Your task to perform on an android device: turn off picture-in-picture Image 0: 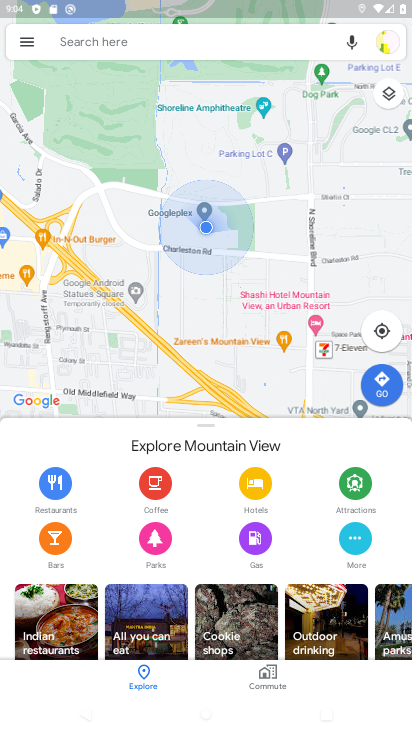
Step 0: press home button
Your task to perform on an android device: turn off picture-in-picture Image 1: 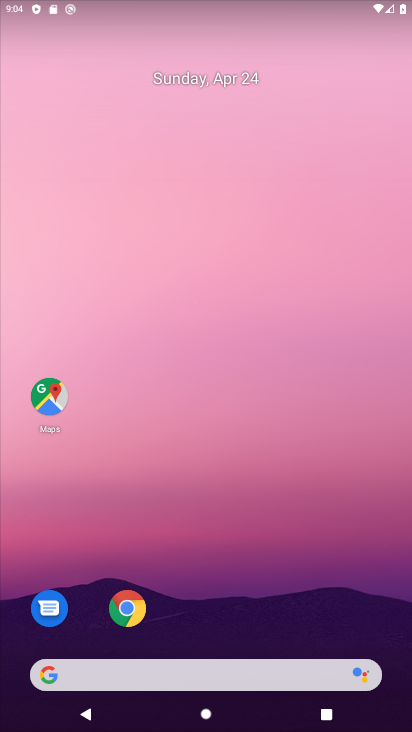
Step 1: drag from (301, 692) to (274, 211)
Your task to perform on an android device: turn off picture-in-picture Image 2: 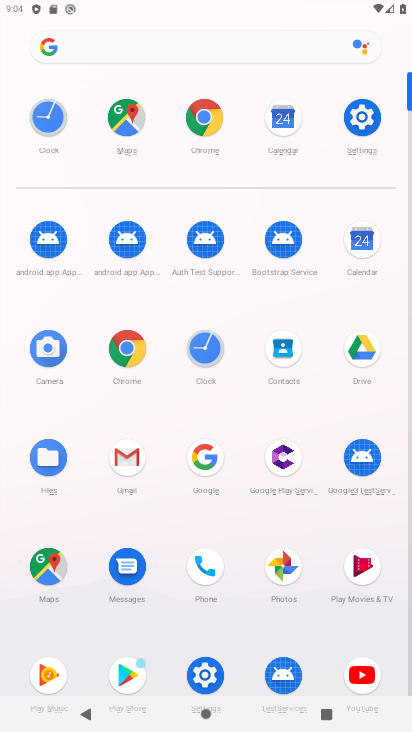
Step 2: click (354, 132)
Your task to perform on an android device: turn off picture-in-picture Image 3: 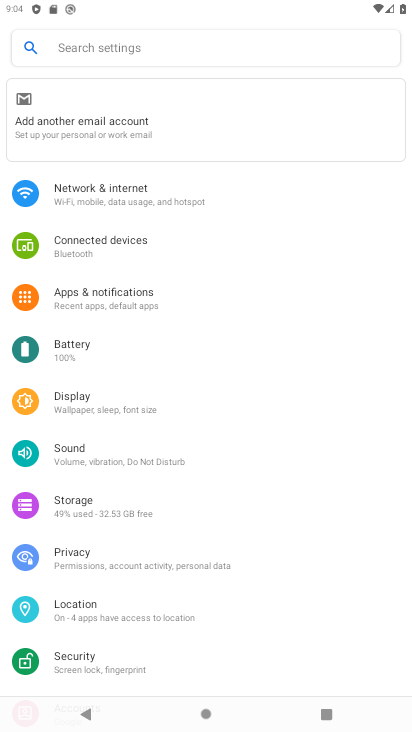
Step 3: click (234, 59)
Your task to perform on an android device: turn off picture-in-picture Image 4: 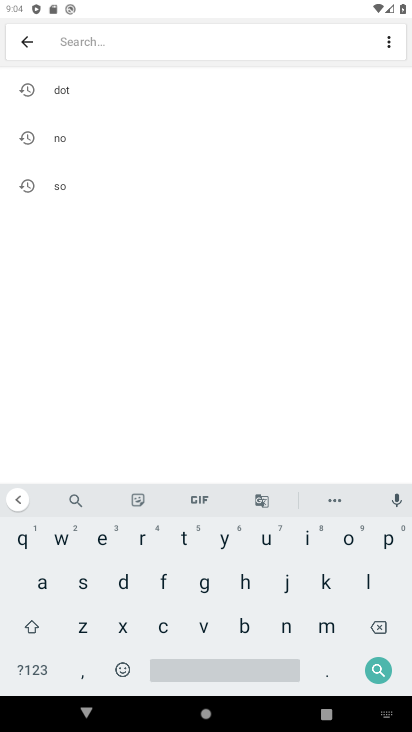
Step 4: click (384, 541)
Your task to perform on an android device: turn off picture-in-picture Image 5: 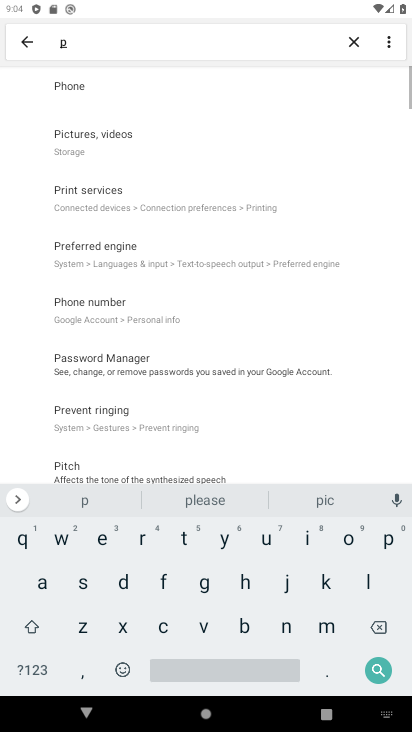
Step 5: click (310, 536)
Your task to perform on an android device: turn off picture-in-picture Image 6: 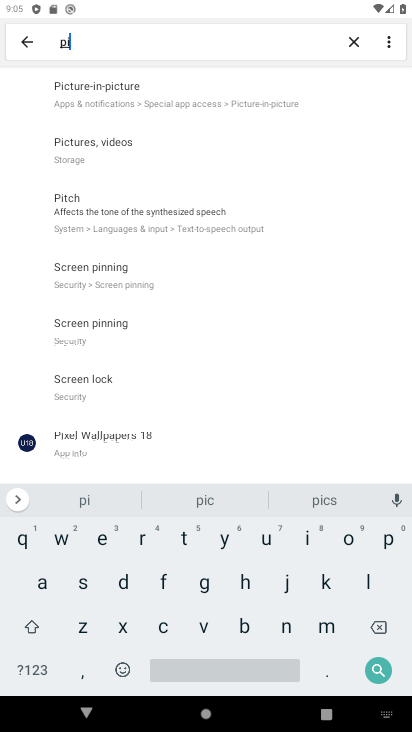
Step 6: click (255, 90)
Your task to perform on an android device: turn off picture-in-picture Image 7: 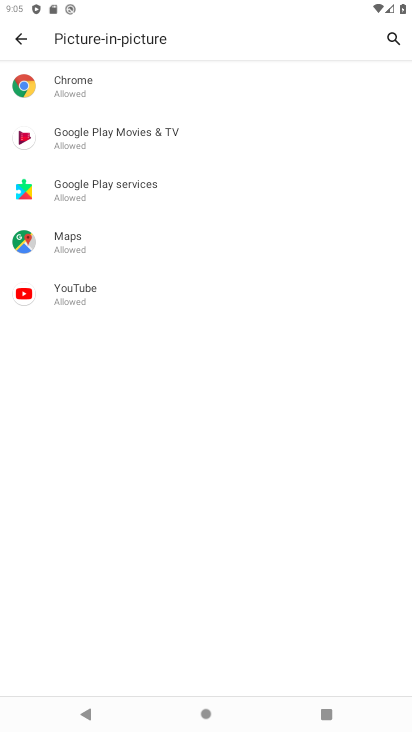
Step 7: task complete